Your task to perform on an android device: Open eBay Image 0: 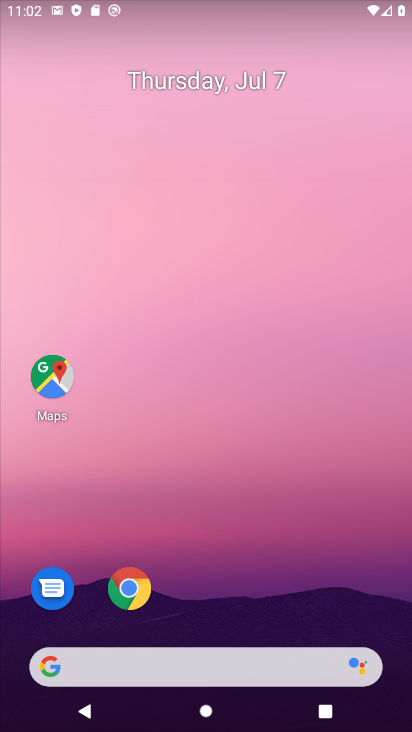
Step 0: click (134, 587)
Your task to perform on an android device: Open eBay Image 1: 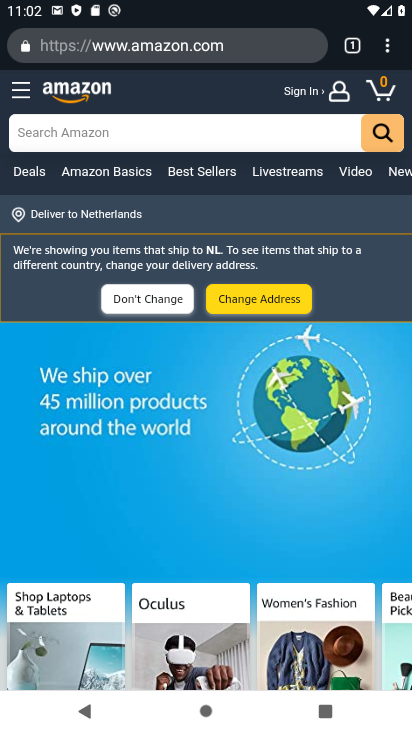
Step 1: click (370, 43)
Your task to perform on an android device: Open eBay Image 2: 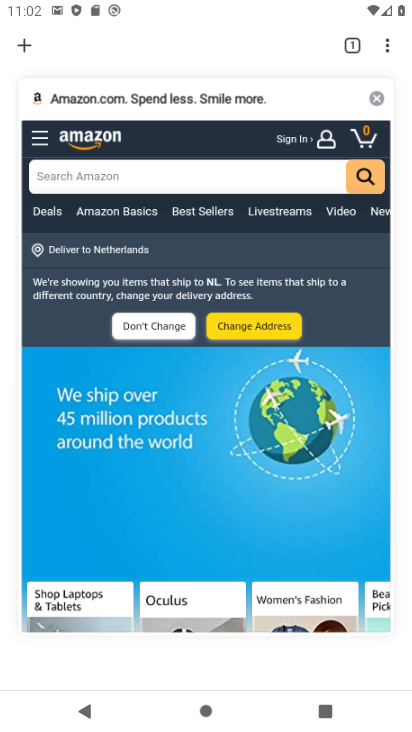
Step 2: click (35, 38)
Your task to perform on an android device: Open eBay Image 3: 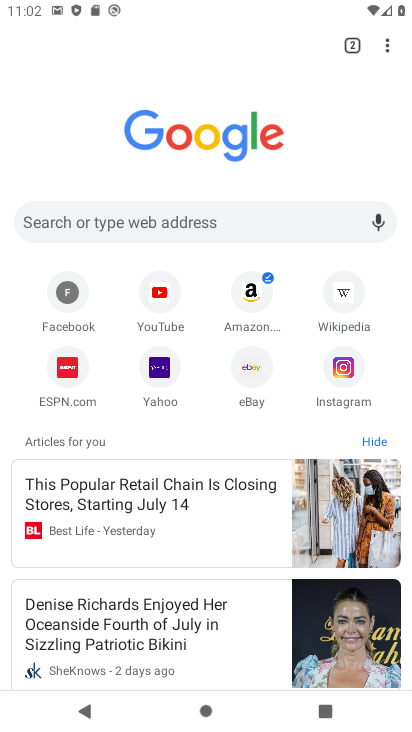
Step 3: click (261, 386)
Your task to perform on an android device: Open eBay Image 4: 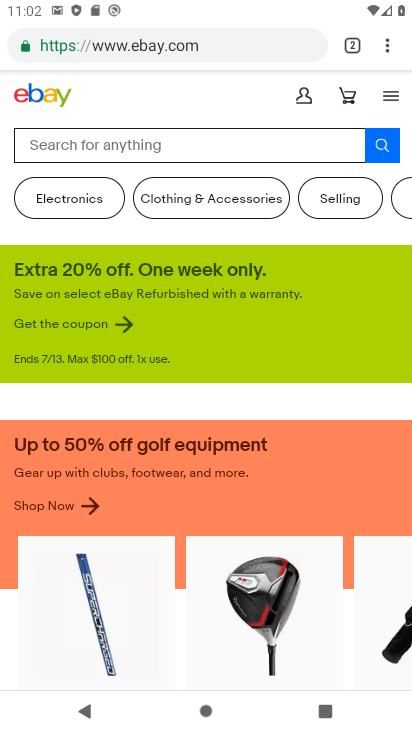
Step 4: task complete